Your task to perform on an android device: What's on my calendar today? Image 0: 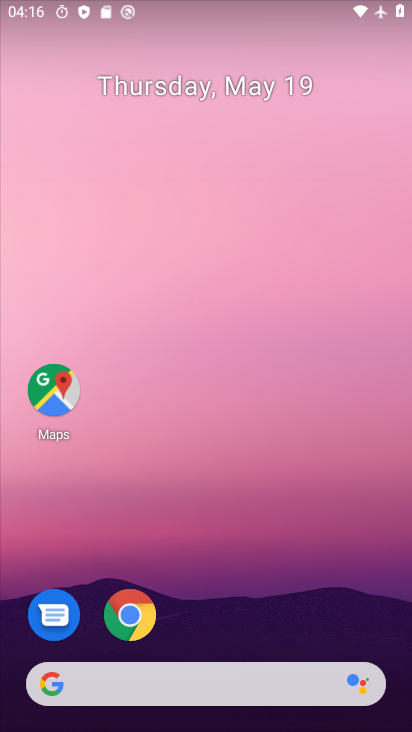
Step 0: drag from (223, 637) to (123, 518)
Your task to perform on an android device: What's on my calendar today? Image 1: 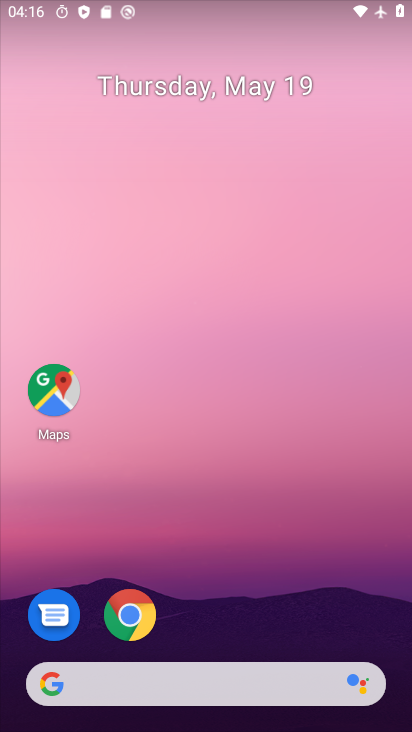
Step 1: drag from (273, 643) to (259, 0)
Your task to perform on an android device: What's on my calendar today? Image 2: 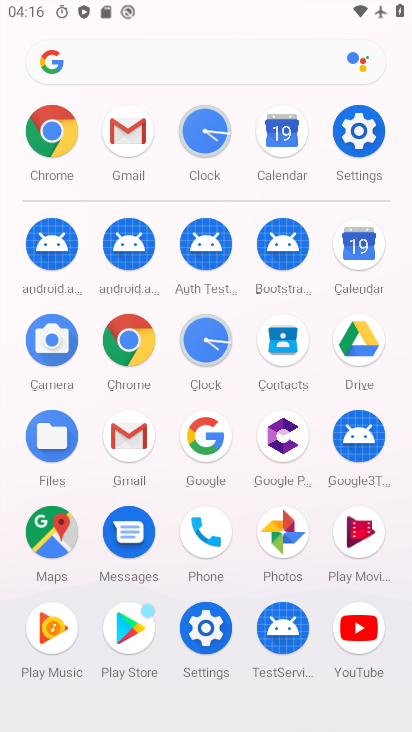
Step 2: click (272, 137)
Your task to perform on an android device: What's on my calendar today? Image 3: 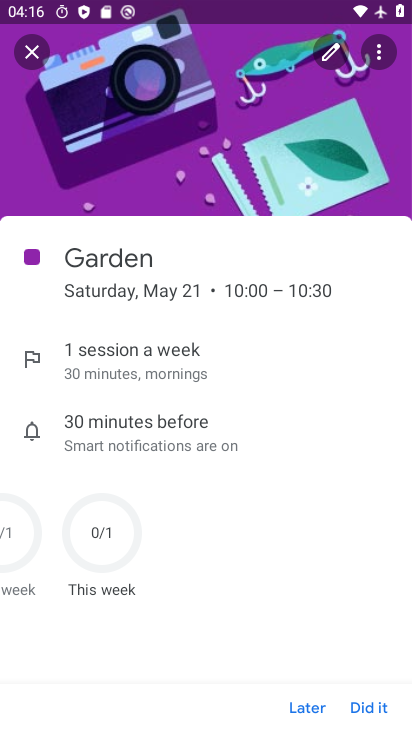
Step 3: click (24, 51)
Your task to perform on an android device: What's on my calendar today? Image 4: 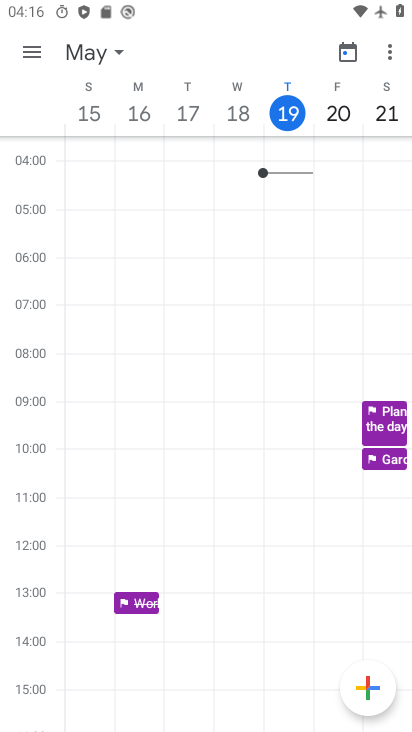
Step 4: click (36, 54)
Your task to perform on an android device: What's on my calendar today? Image 5: 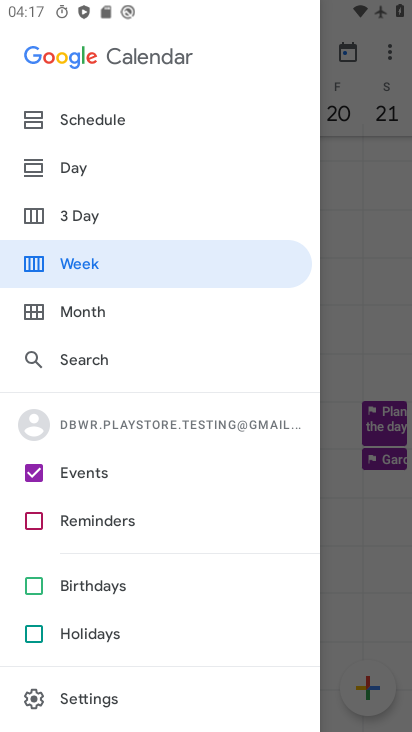
Step 5: click (69, 122)
Your task to perform on an android device: What's on my calendar today? Image 6: 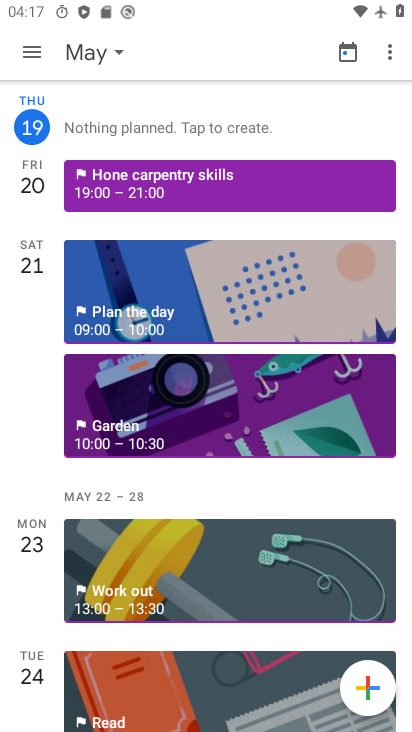
Step 6: click (135, 119)
Your task to perform on an android device: What's on my calendar today? Image 7: 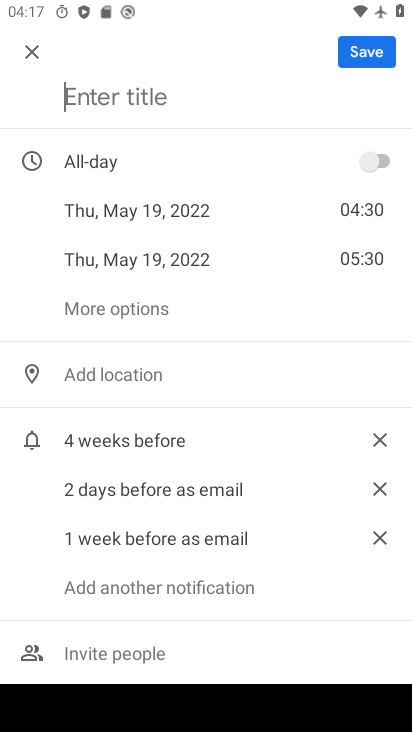
Step 7: task complete